Your task to perform on an android device: see creations saved in the google photos Image 0: 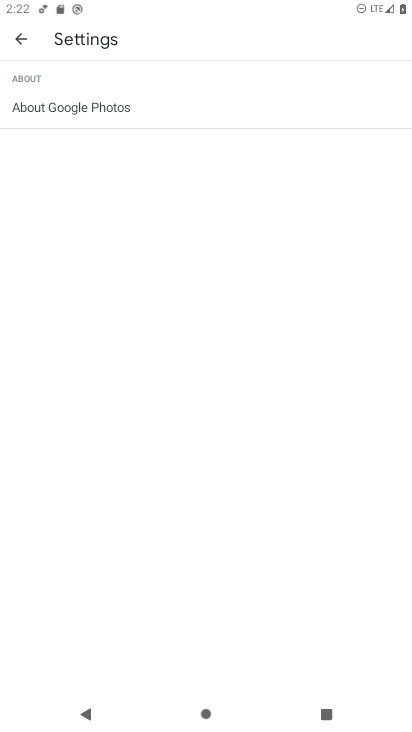
Step 0: press home button
Your task to perform on an android device: see creations saved in the google photos Image 1: 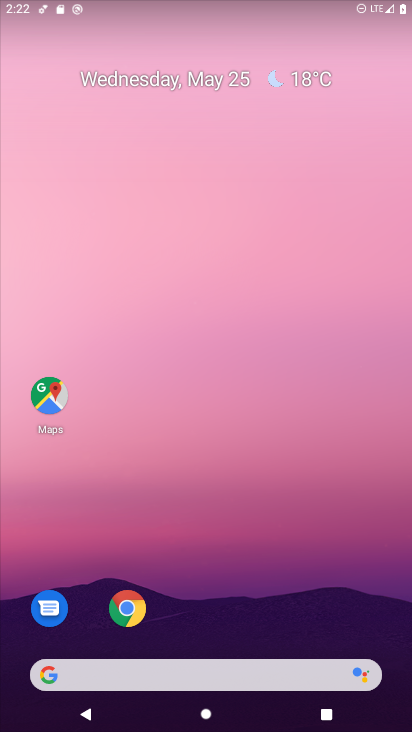
Step 1: drag from (371, 613) to (307, 87)
Your task to perform on an android device: see creations saved in the google photos Image 2: 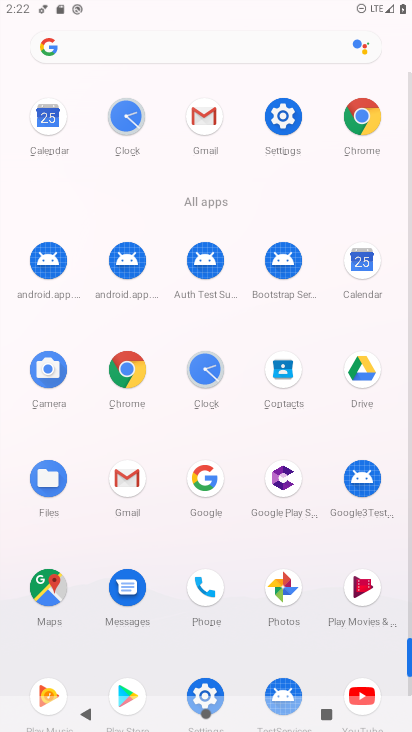
Step 2: click (410, 627)
Your task to perform on an android device: see creations saved in the google photos Image 3: 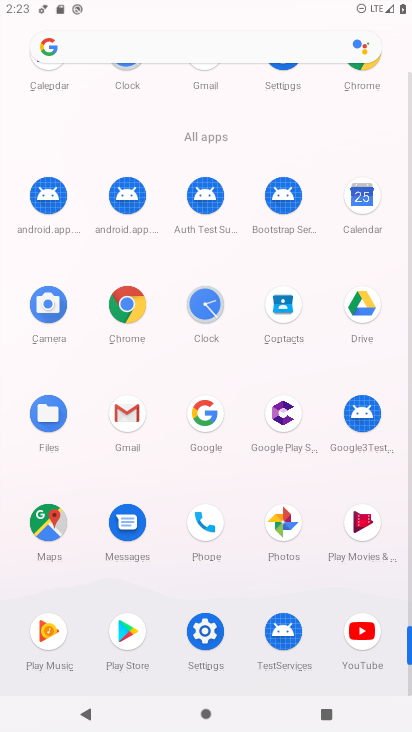
Step 3: click (286, 520)
Your task to perform on an android device: see creations saved in the google photos Image 4: 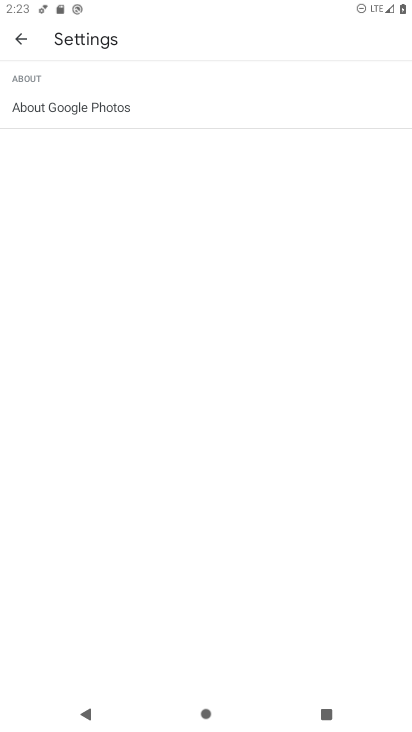
Step 4: press back button
Your task to perform on an android device: see creations saved in the google photos Image 5: 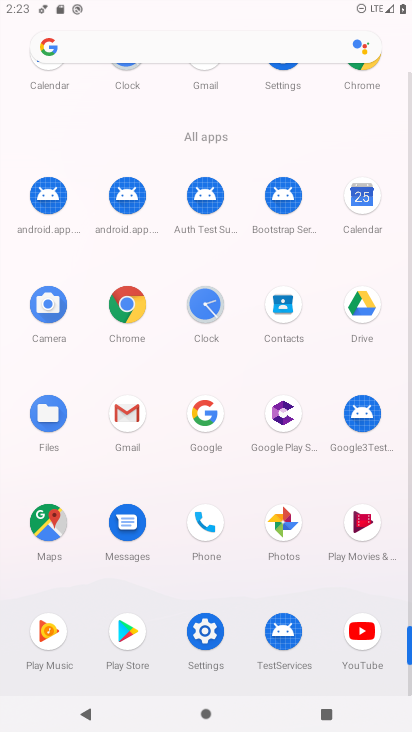
Step 5: click (278, 517)
Your task to perform on an android device: see creations saved in the google photos Image 6: 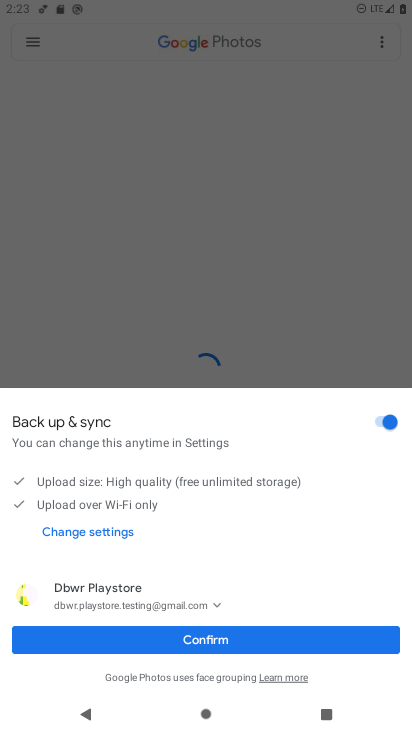
Step 6: click (185, 644)
Your task to perform on an android device: see creations saved in the google photos Image 7: 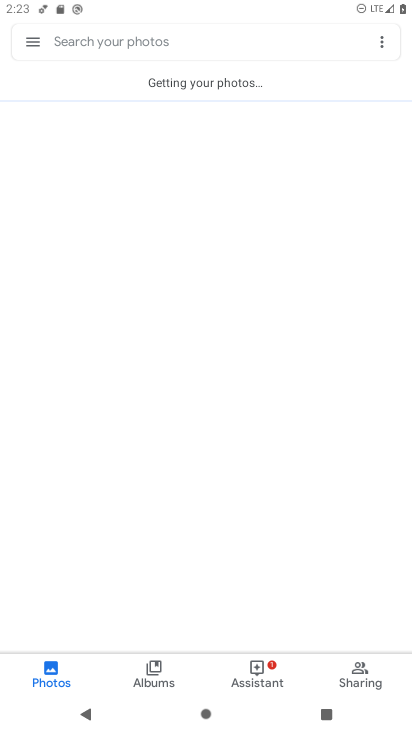
Step 7: task complete